Your task to perform on an android device: Open maps Image 0: 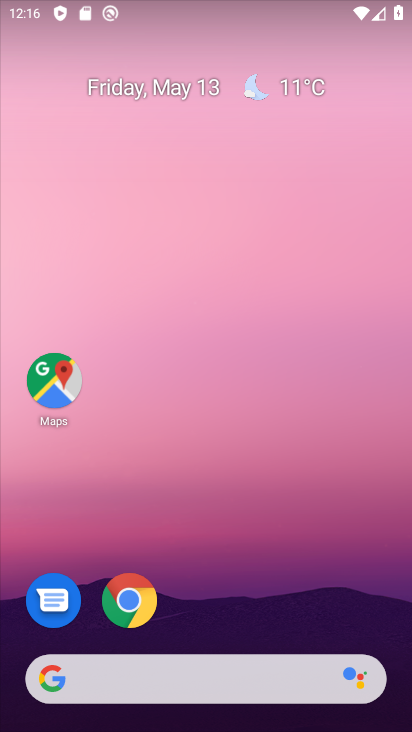
Step 0: click (54, 365)
Your task to perform on an android device: Open maps Image 1: 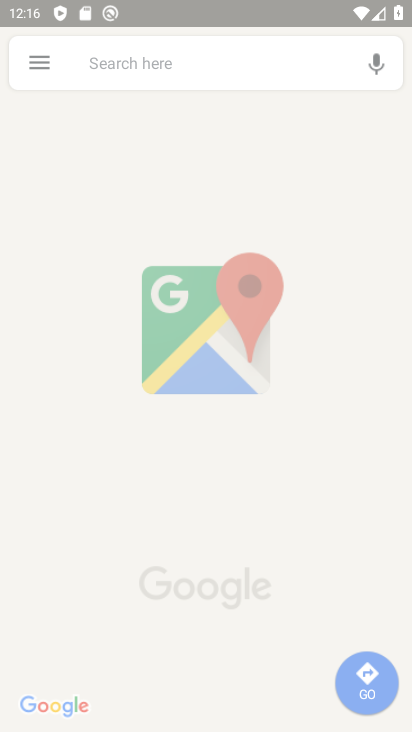
Step 1: task complete